Your task to perform on an android device: Search for logitech g903 on bestbuy.com, select the first entry, and add it to the cart. Image 0: 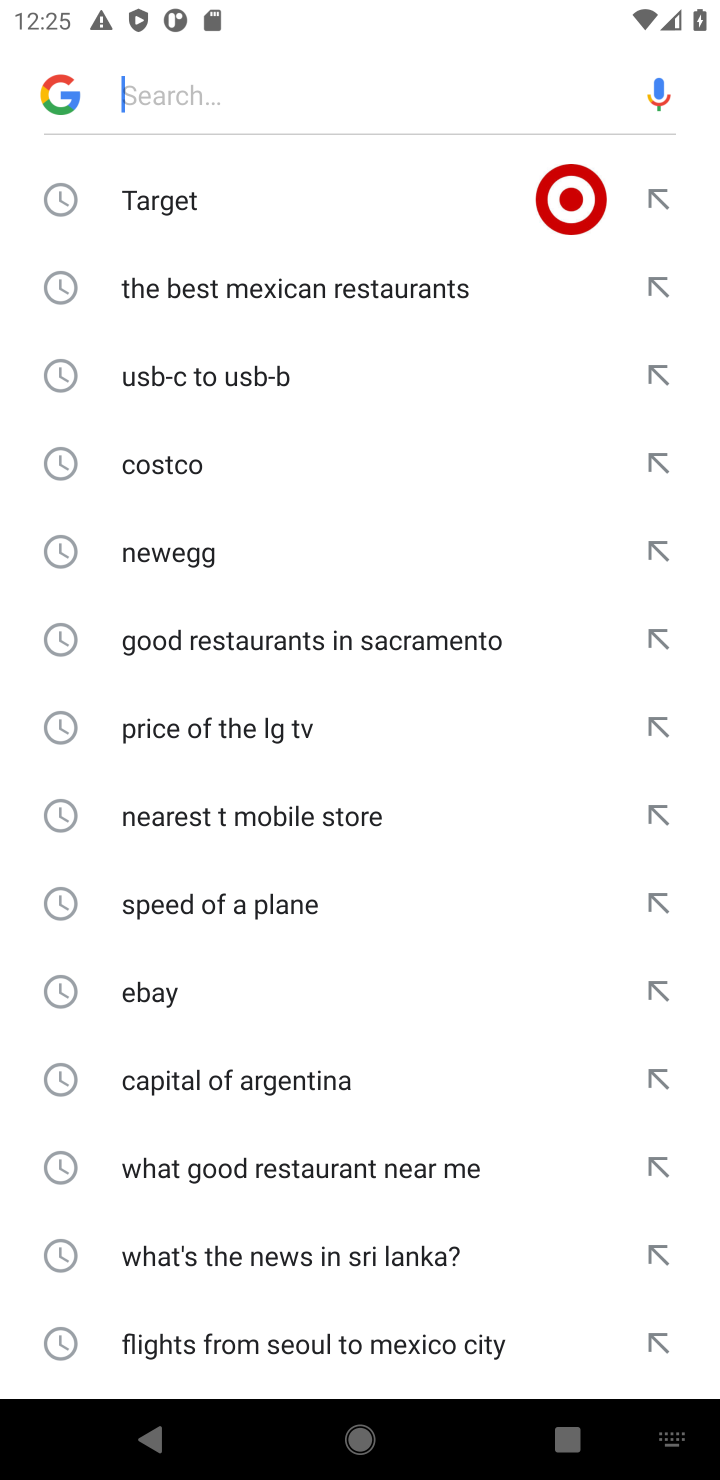
Step 0: type "estbuy.com"
Your task to perform on an android device: Search for logitech g903 on bestbuy.com, select the first entry, and add it to the cart. Image 1: 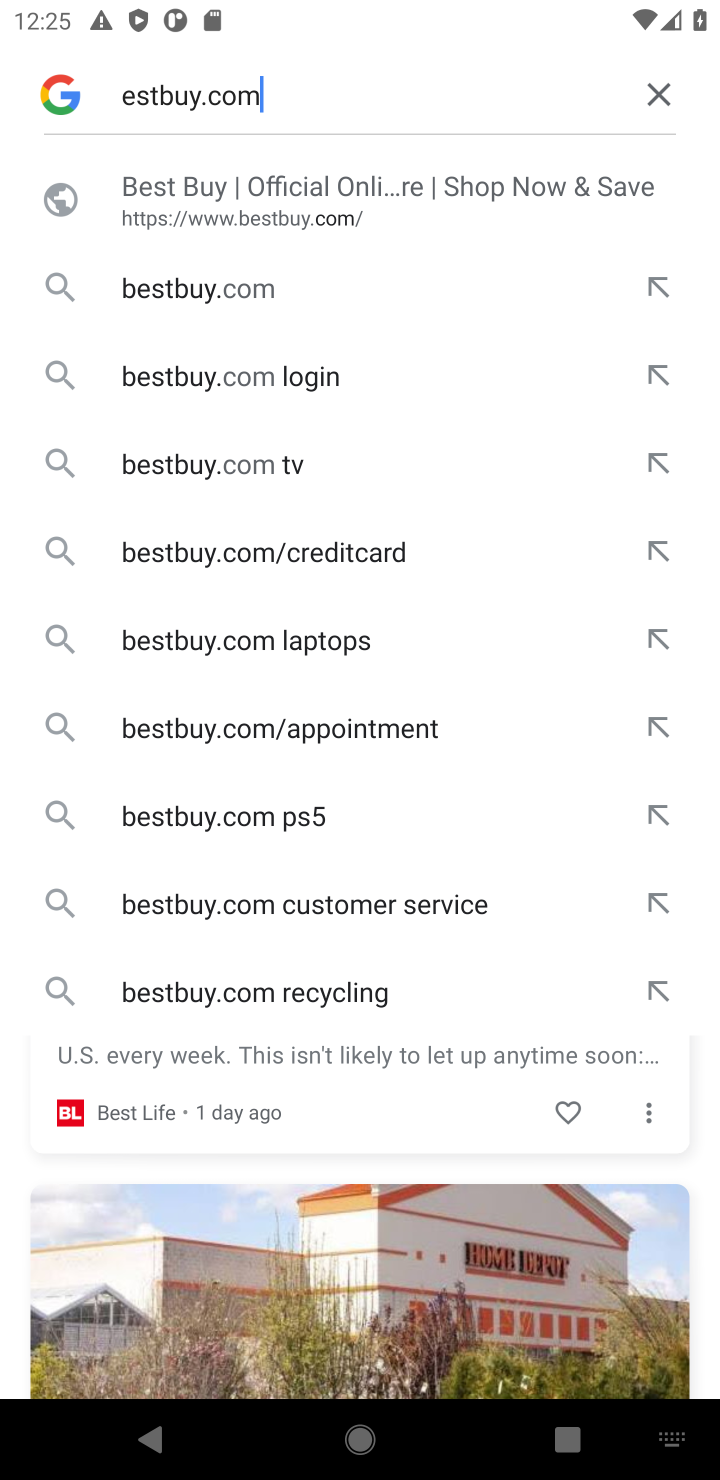
Step 1: click (228, 288)
Your task to perform on an android device: Search for logitech g903 on bestbuy.com, select the first entry, and add it to the cart. Image 2: 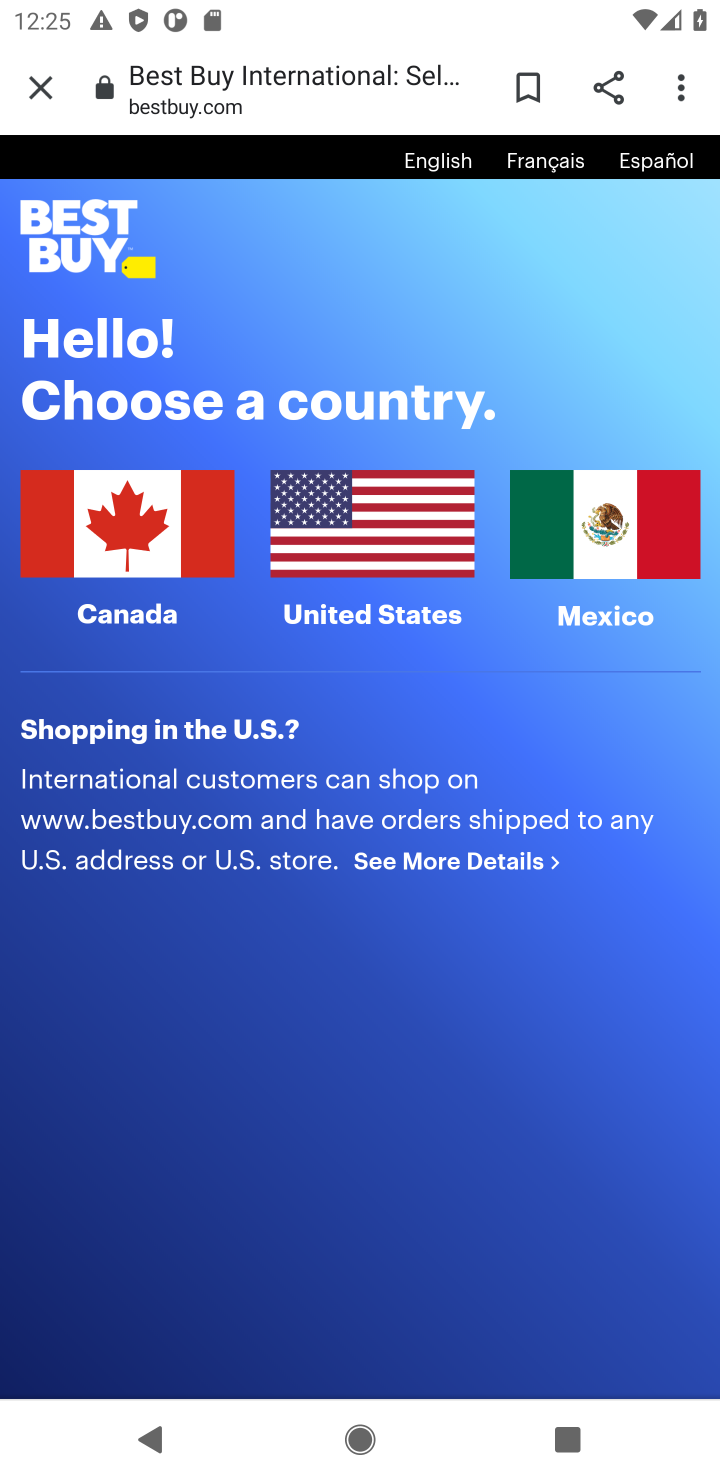
Step 2: click (409, 530)
Your task to perform on an android device: Search for logitech g903 on bestbuy.com, select the first entry, and add it to the cart. Image 3: 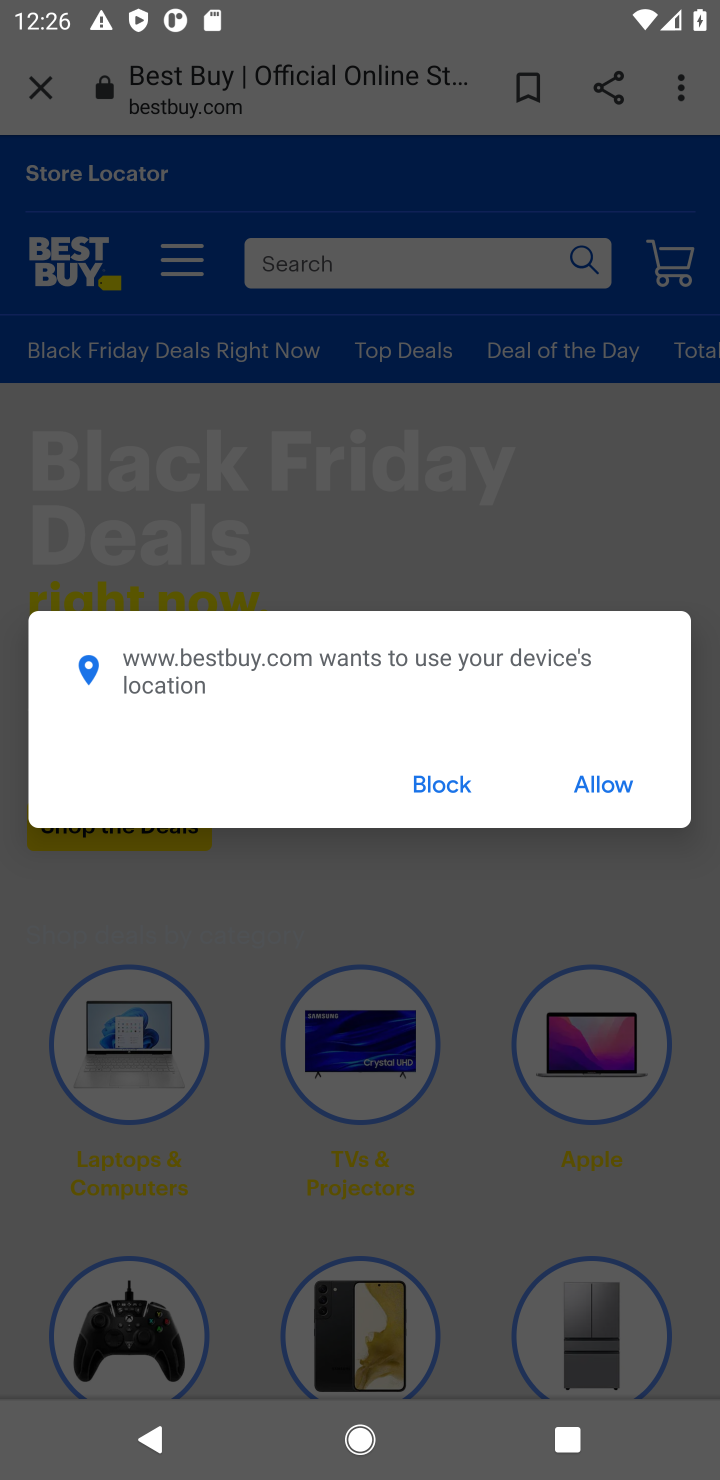
Step 3: click (439, 787)
Your task to perform on an android device: Search for logitech g903 on bestbuy.com, select the first entry, and add it to the cart. Image 4: 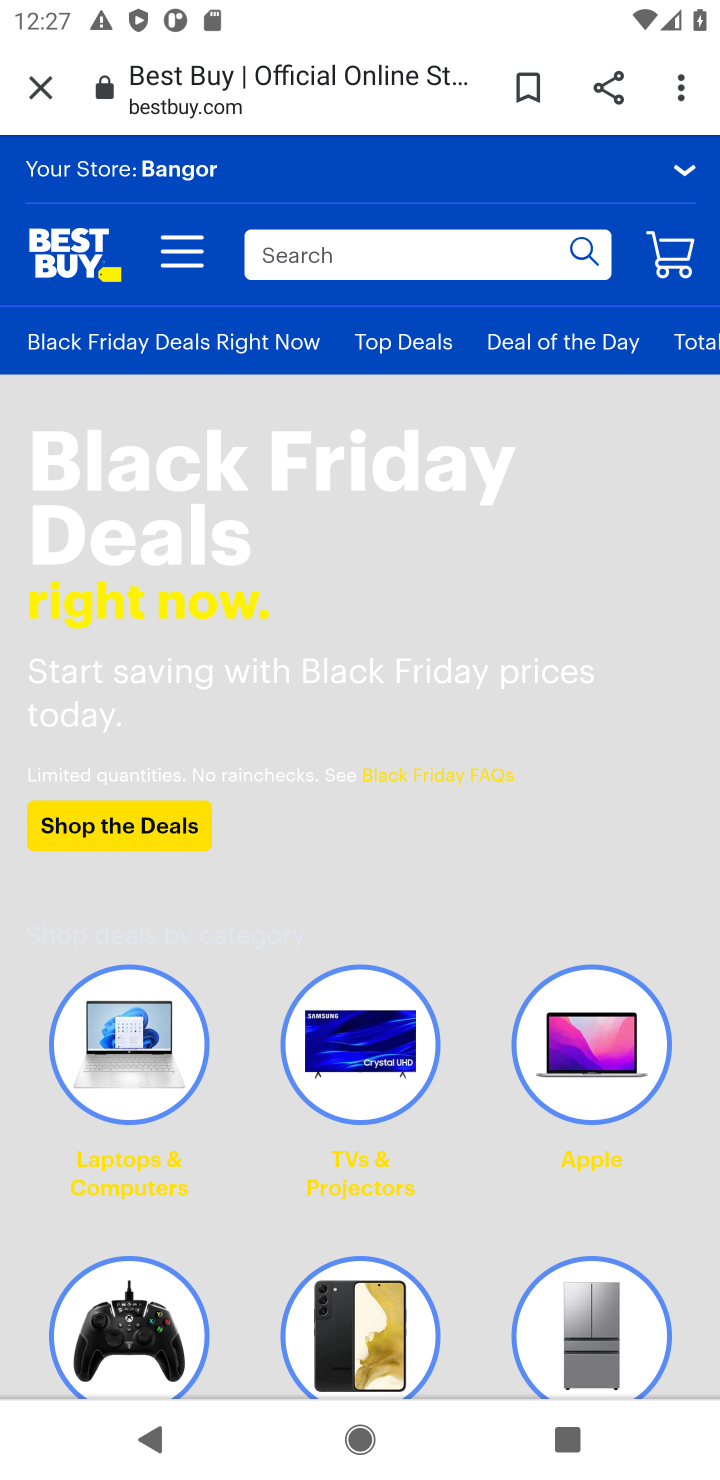
Step 4: click (370, 257)
Your task to perform on an android device: Search for logitech g903 on bestbuy.com, select the first entry, and add it to the cart. Image 5: 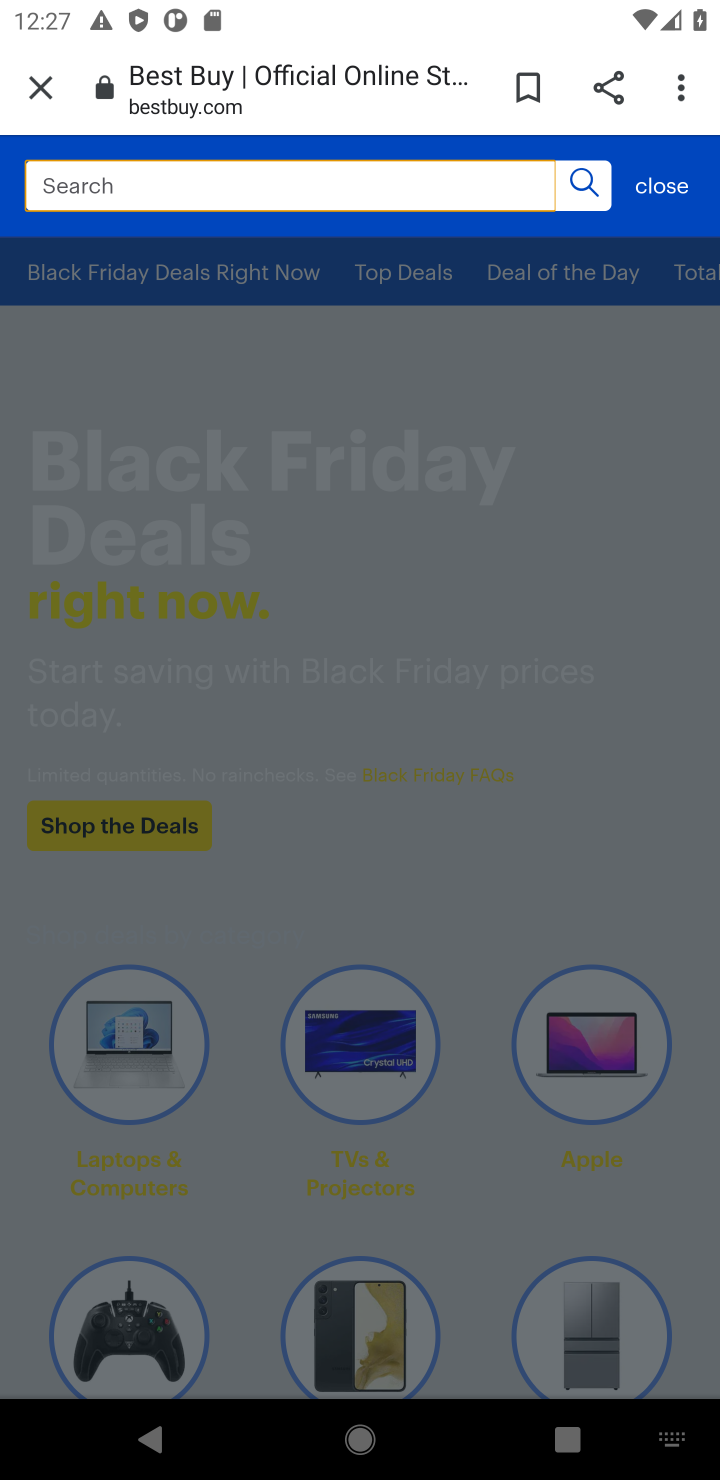
Step 5: type "logitech g90"
Your task to perform on an android device: Search for logitech g903 on bestbuy.com, select the first entry, and add it to the cart. Image 6: 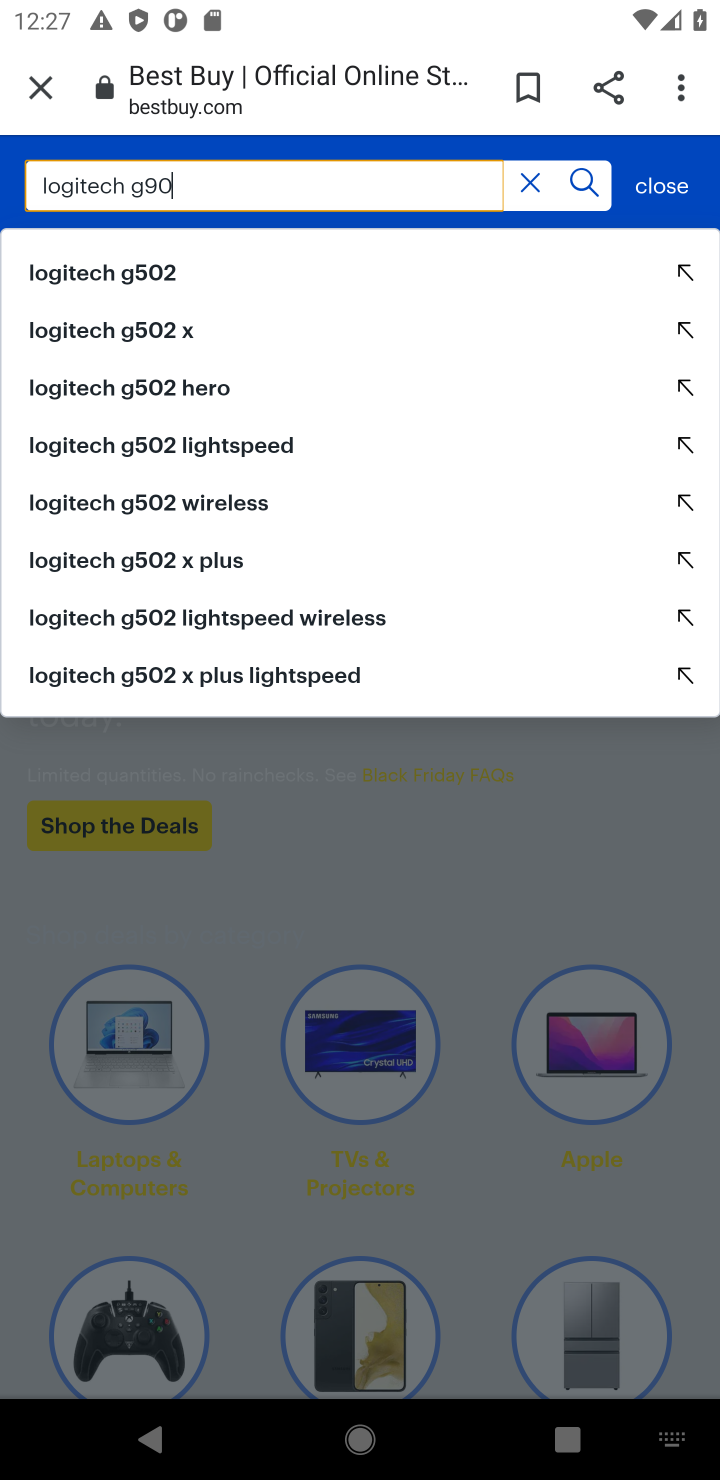
Step 6: type "3"
Your task to perform on an android device: Search for logitech g903 on bestbuy.com, select the first entry, and add it to the cart. Image 7: 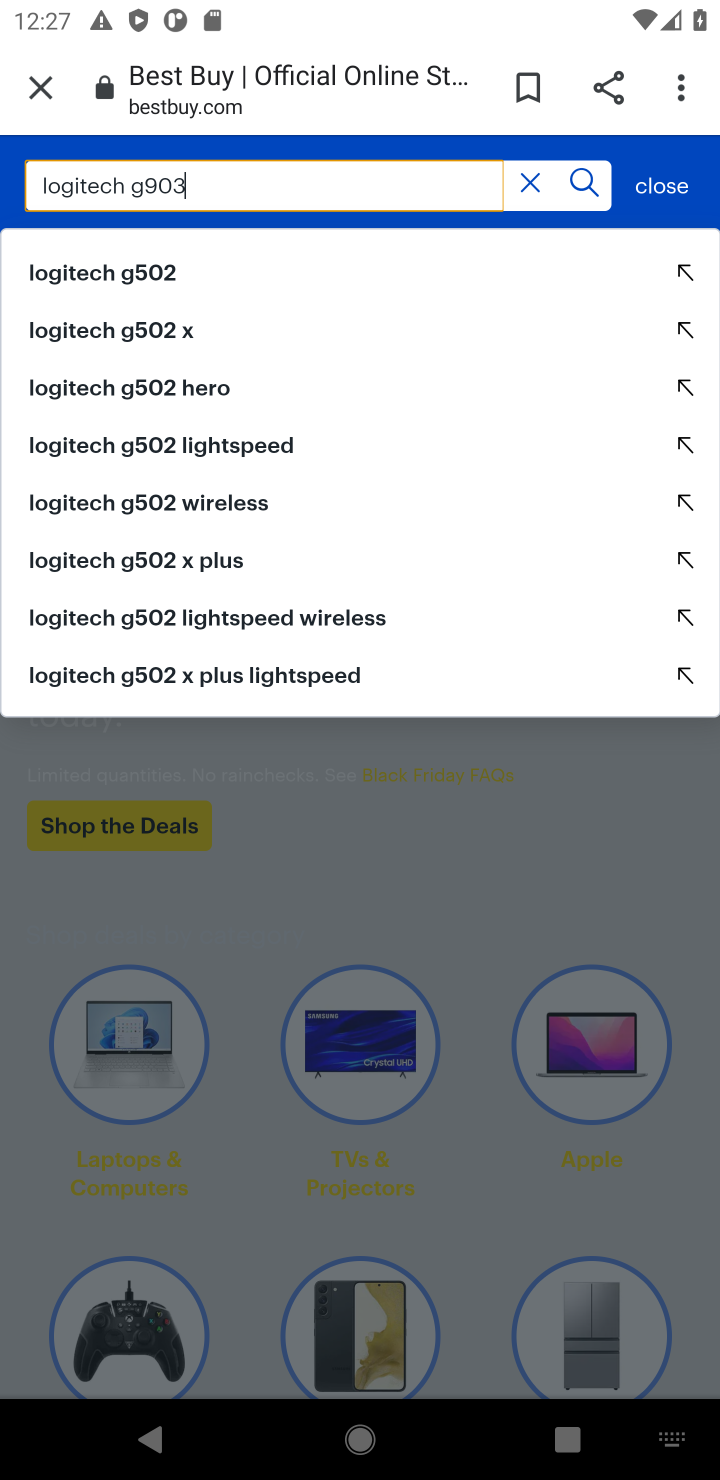
Step 7: type ""
Your task to perform on an android device: Search for logitech g903 on bestbuy.com, select the first entry, and add it to the cart. Image 8: 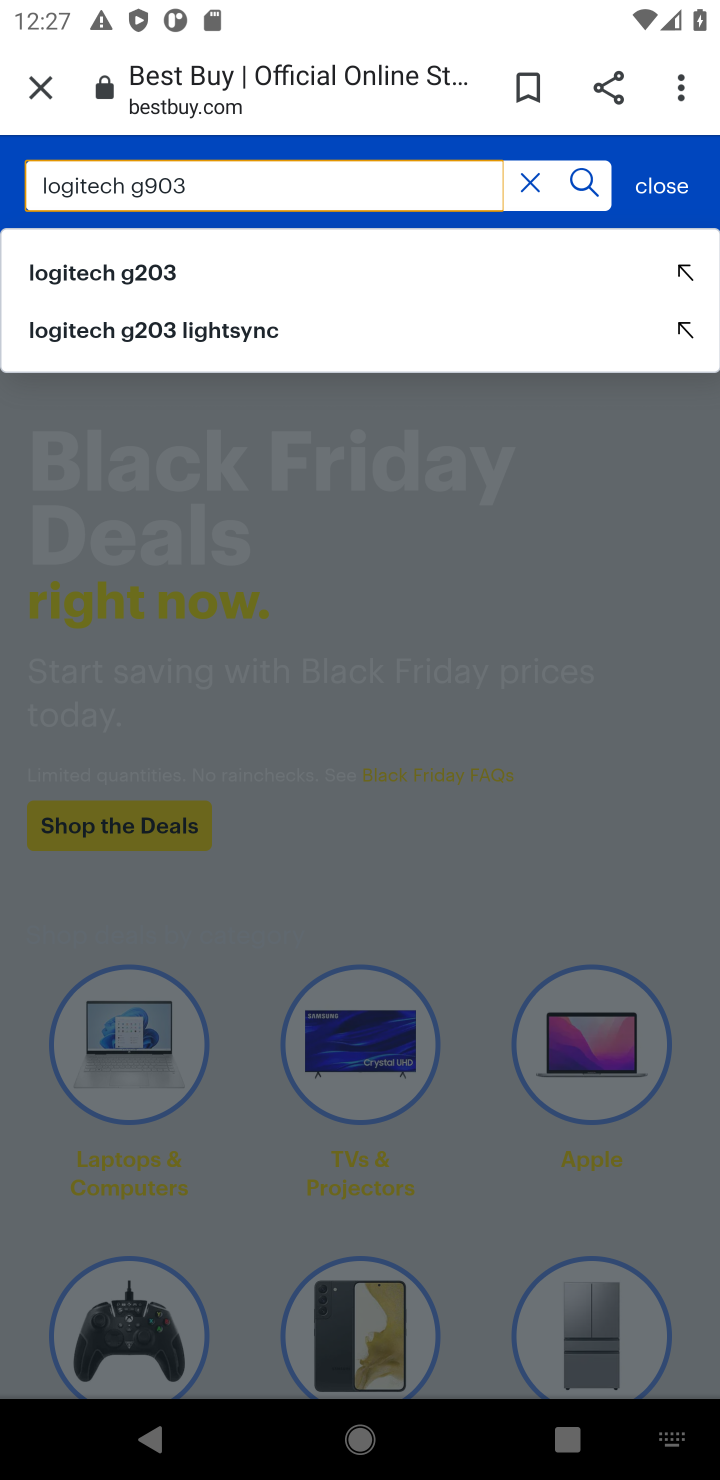
Step 8: click (152, 265)
Your task to perform on an android device: Search for logitech g903 on bestbuy.com, select the first entry, and add it to the cart. Image 9: 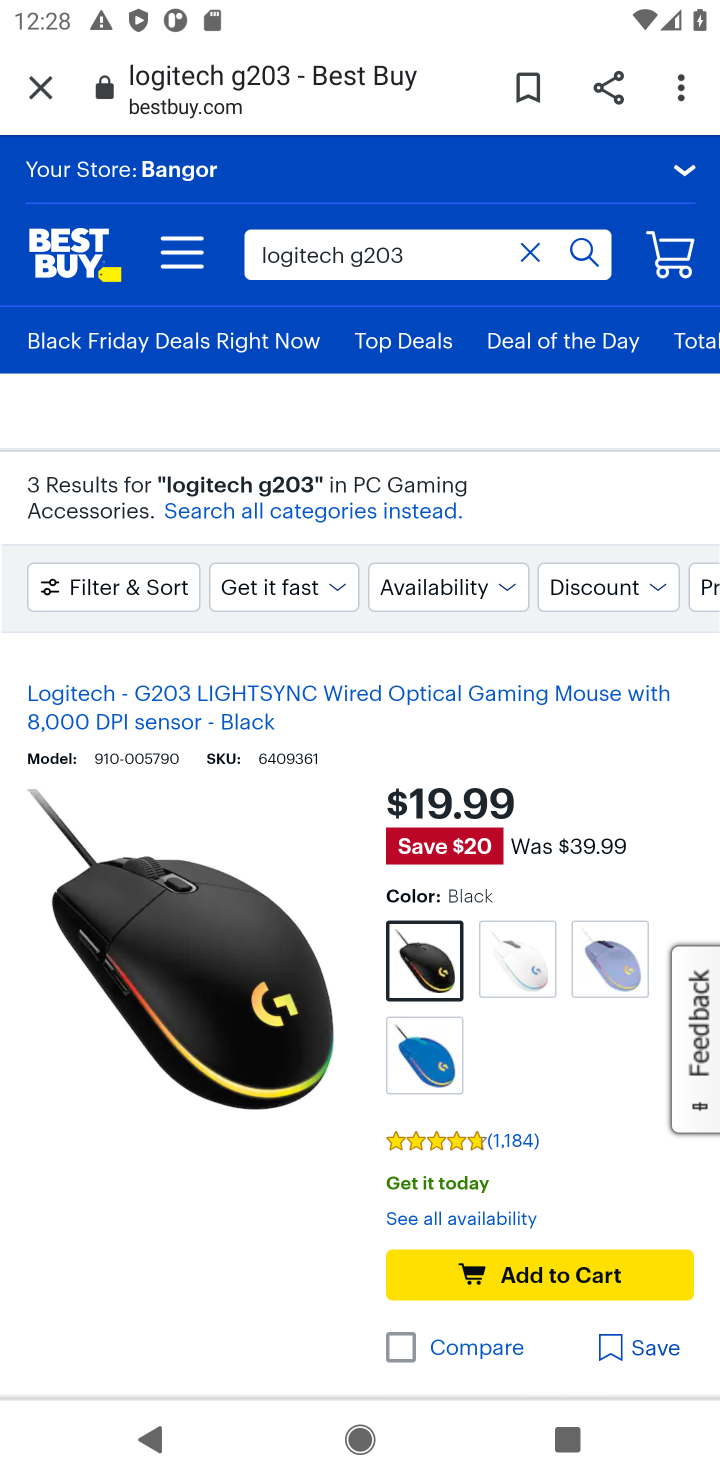
Step 9: click (561, 1274)
Your task to perform on an android device: Search for logitech g903 on bestbuy.com, select the first entry, and add it to the cart. Image 10: 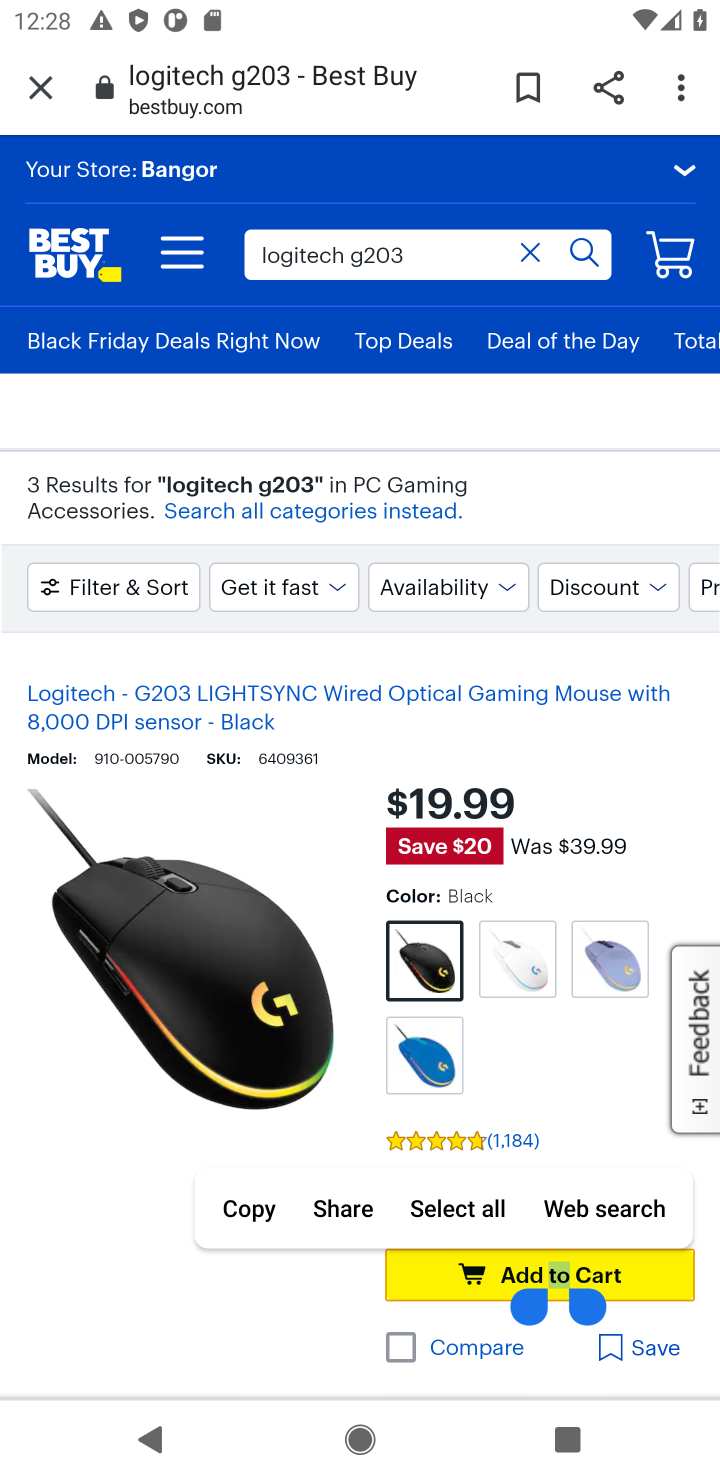
Step 10: click (533, 1274)
Your task to perform on an android device: Search for logitech g903 on bestbuy.com, select the first entry, and add it to the cart. Image 11: 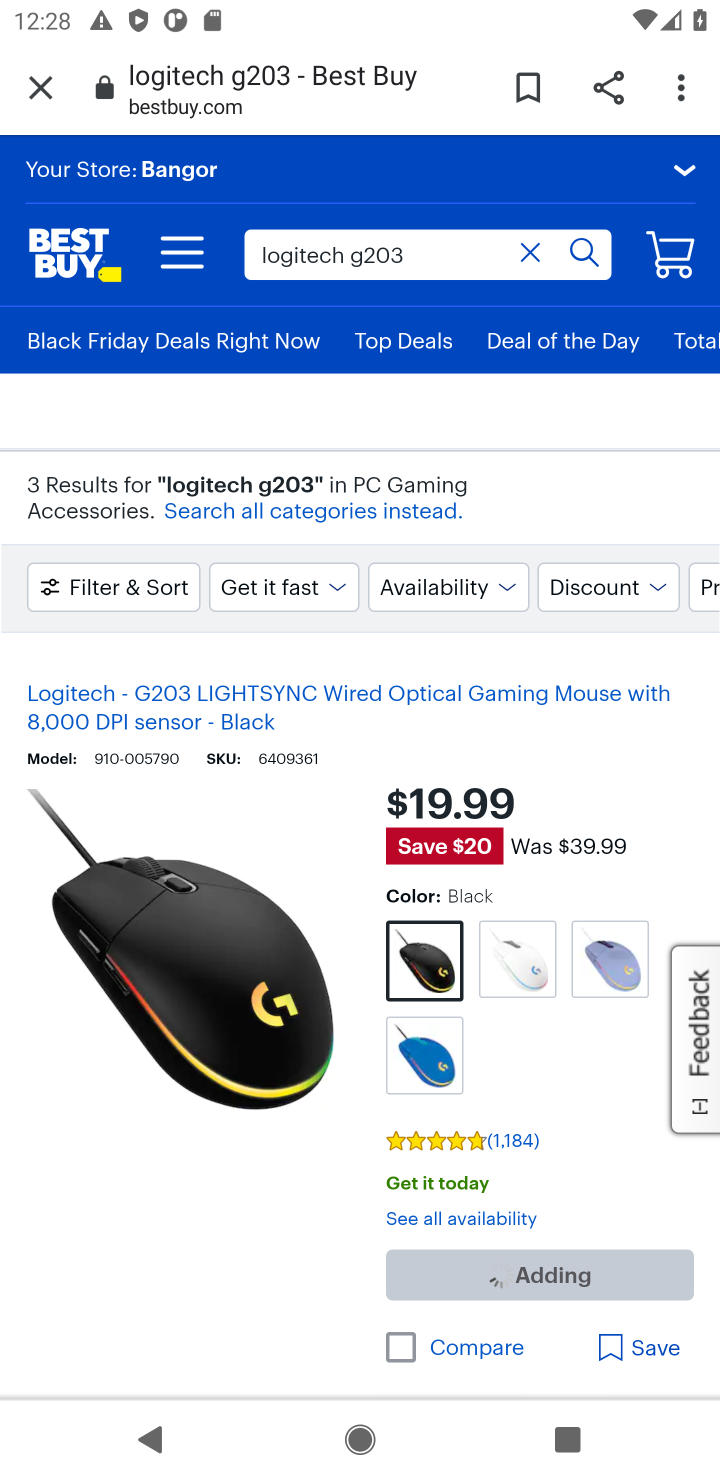
Step 11: click (533, 1274)
Your task to perform on an android device: Search for logitech g903 on bestbuy.com, select the first entry, and add it to the cart. Image 12: 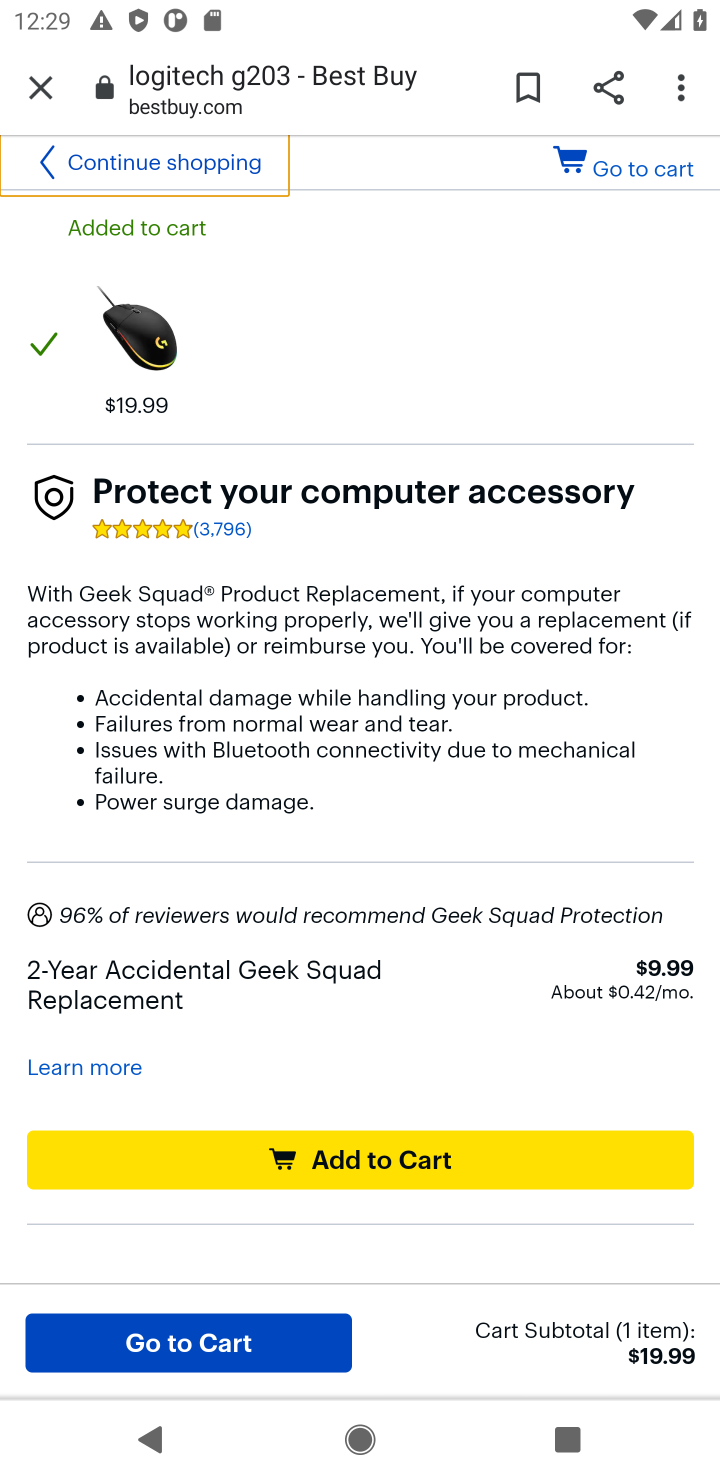
Step 12: task complete